Your task to perform on an android device: Open Chrome and go to the settings page Image 0: 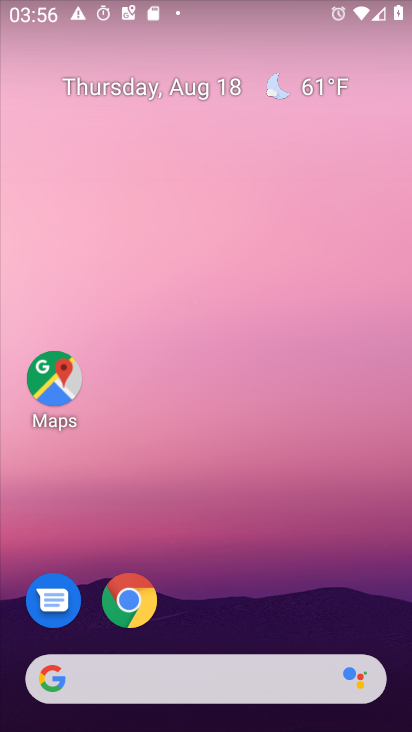
Step 0: press home button
Your task to perform on an android device: Open Chrome and go to the settings page Image 1: 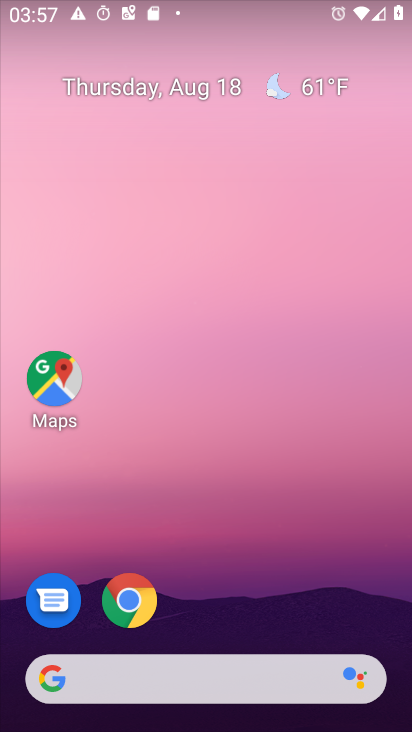
Step 1: press home button
Your task to perform on an android device: Open Chrome and go to the settings page Image 2: 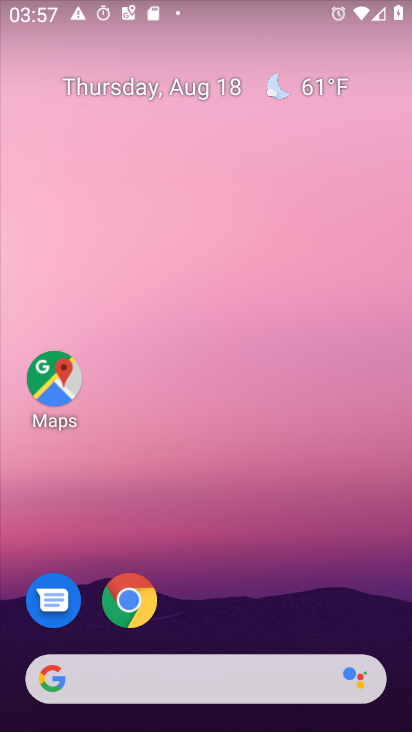
Step 2: click (129, 604)
Your task to perform on an android device: Open Chrome and go to the settings page Image 3: 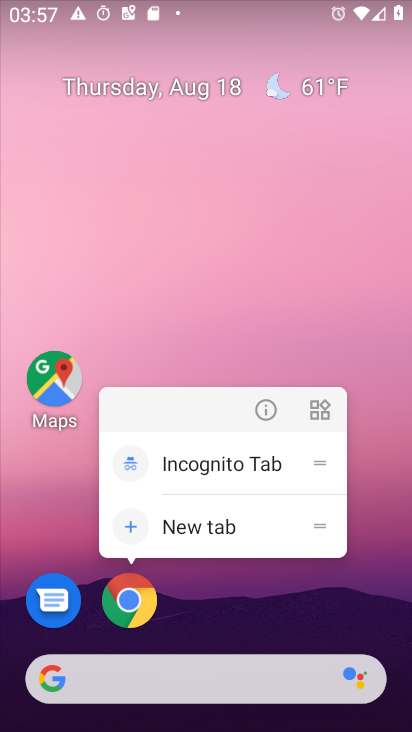
Step 3: click (129, 604)
Your task to perform on an android device: Open Chrome and go to the settings page Image 4: 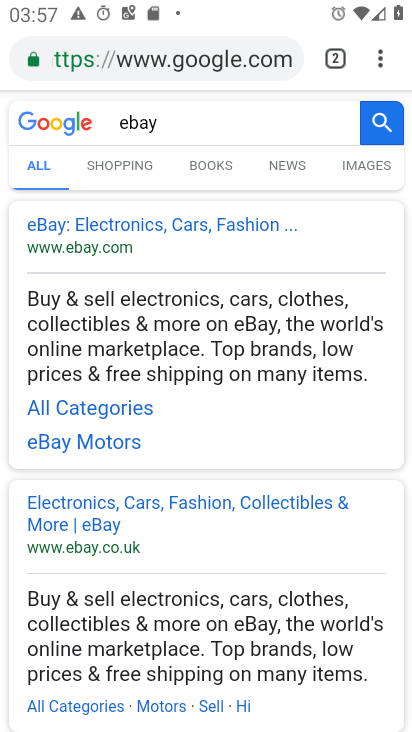
Step 4: task complete